Your task to perform on an android device: check out phone information Image 0: 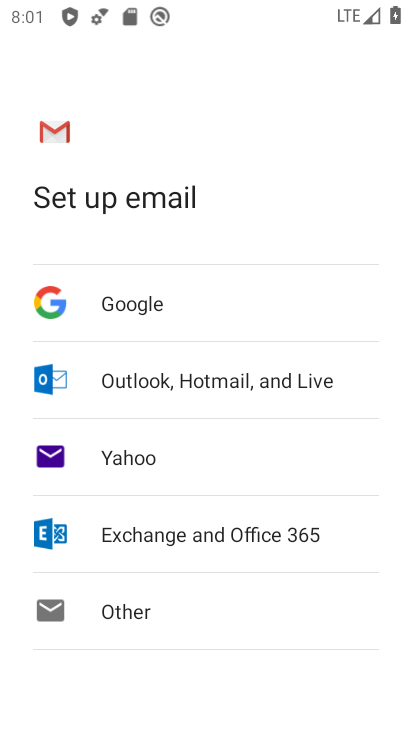
Step 0: press home button
Your task to perform on an android device: check out phone information Image 1: 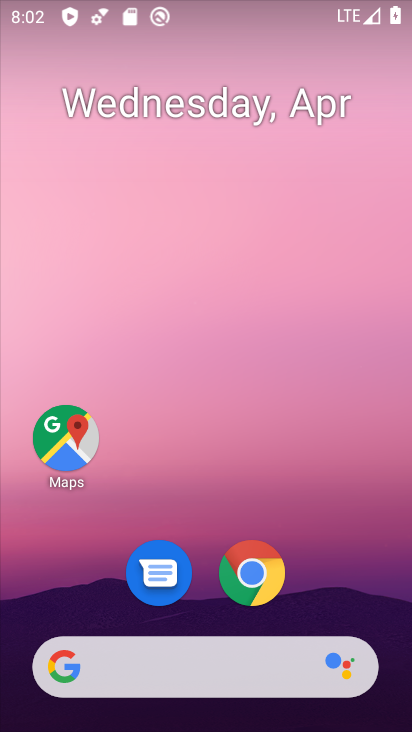
Step 1: drag from (55, 604) to (268, 220)
Your task to perform on an android device: check out phone information Image 2: 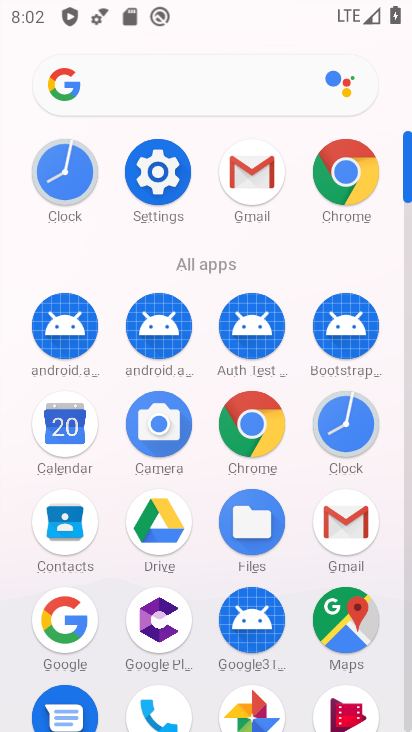
Step 2: click (148, 703)
Your task to perform on an android device: check out phone information Image 3: 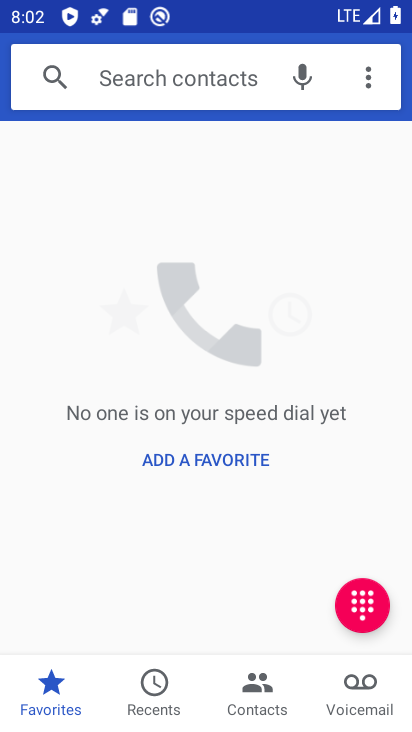
Step 3: click (114, 648)
Your task to perform on an android device: check out phone information Image 4: 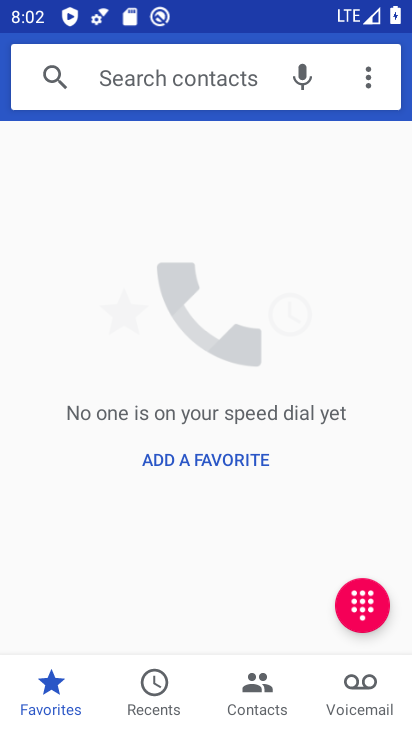
Step 4: click (373, 80)
Your task to perform on an android device: check out phone information Image 5: 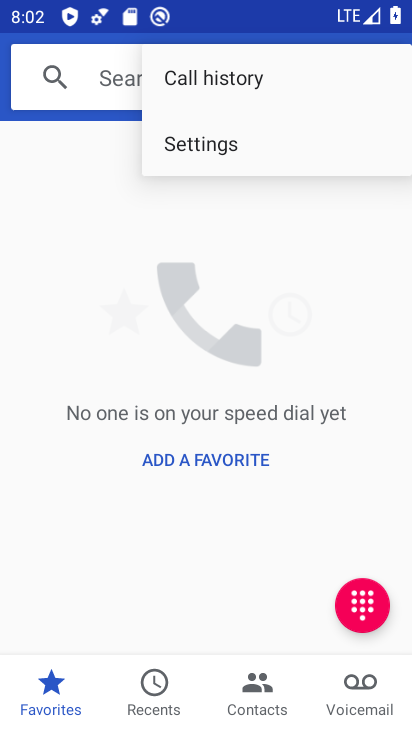
Step 5: click (270, 149)
Your task to perform on an android device: check out phone information Image 6: 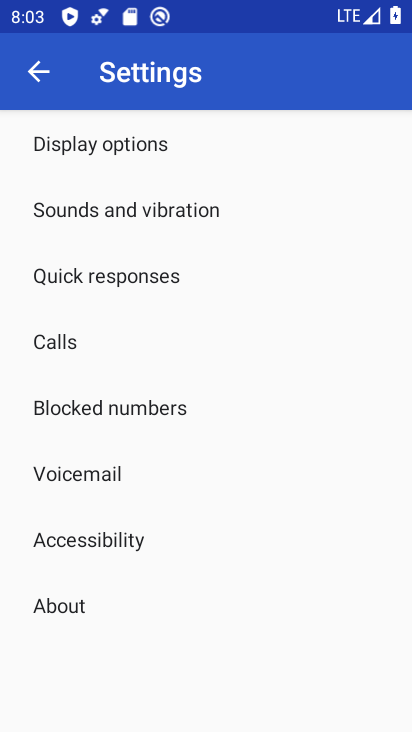
Step 6: task complete